Your task to perform on an android device: Add "usb-a" to the cart on newegg.com Image 0: 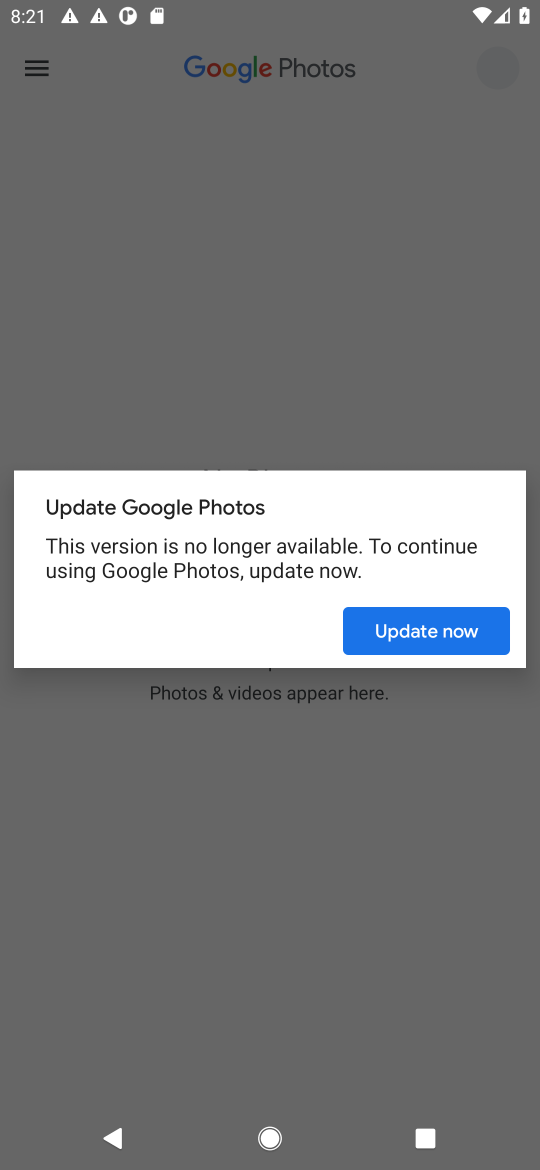
Step 0: press home button
Your task to perform on an android device: Add "usb-a" to the cart on newegg.com Image 1: 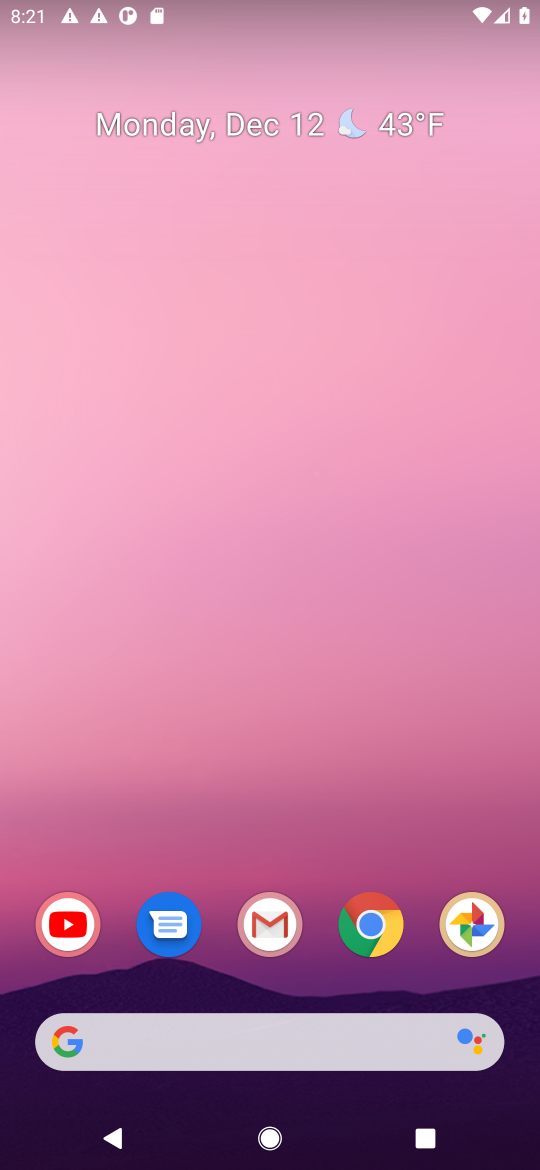
Step 1: click (262, 1044)
Your task to perform on an android device: Add "usb-a" to the cart on newegg.com Image 2: 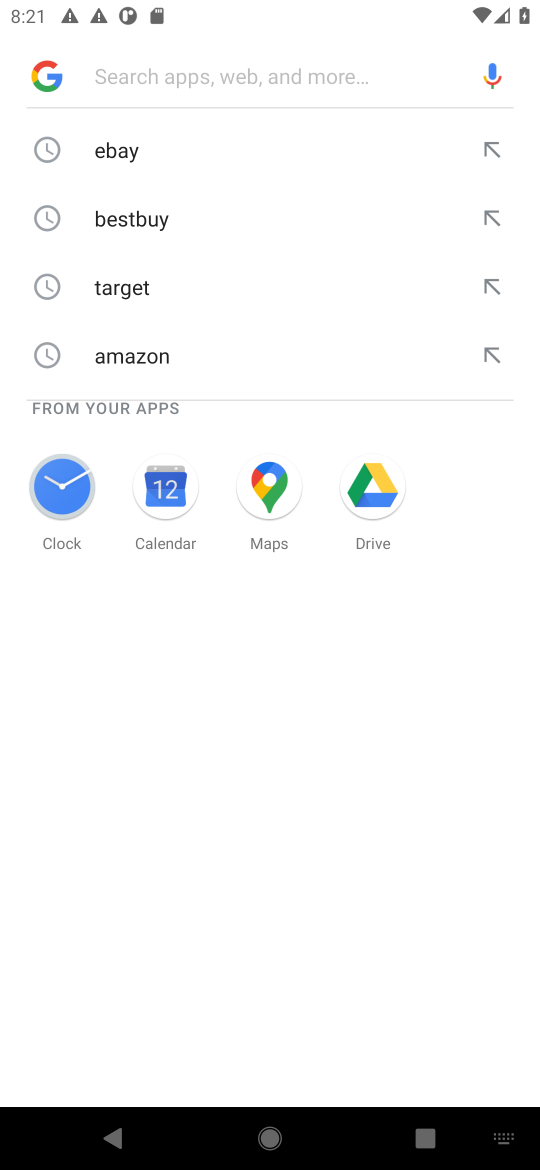
Step 2: type "newegg.com"
Your task to perform on an android device: Add "usb-a" to the cart on newegg.com Image 3: 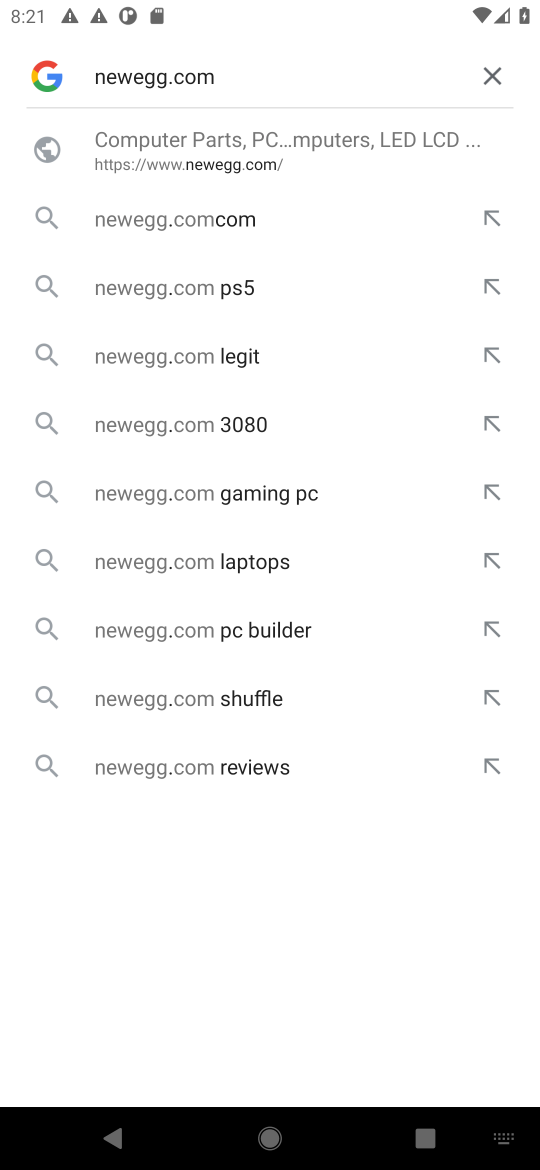
Step 3: click (221, 134)
Your task to perform on an android device: Add "usb-a" to the cart on newegg.com Image 4: 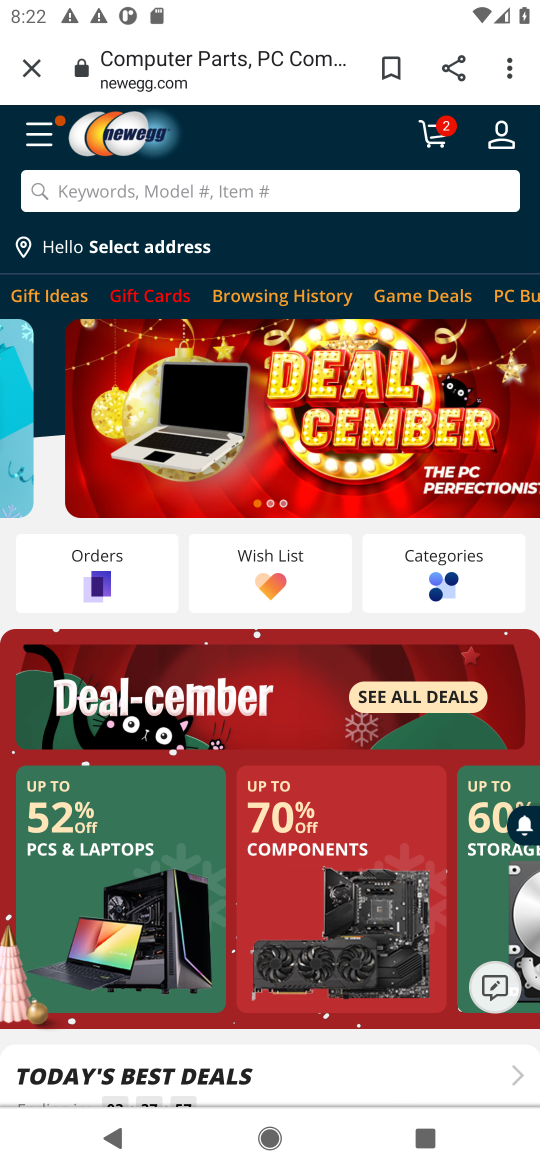
Step 4: click (335, 197)
Your task to perform on an android device: Add "usb-a" to the cart on newegg.com Image 5: 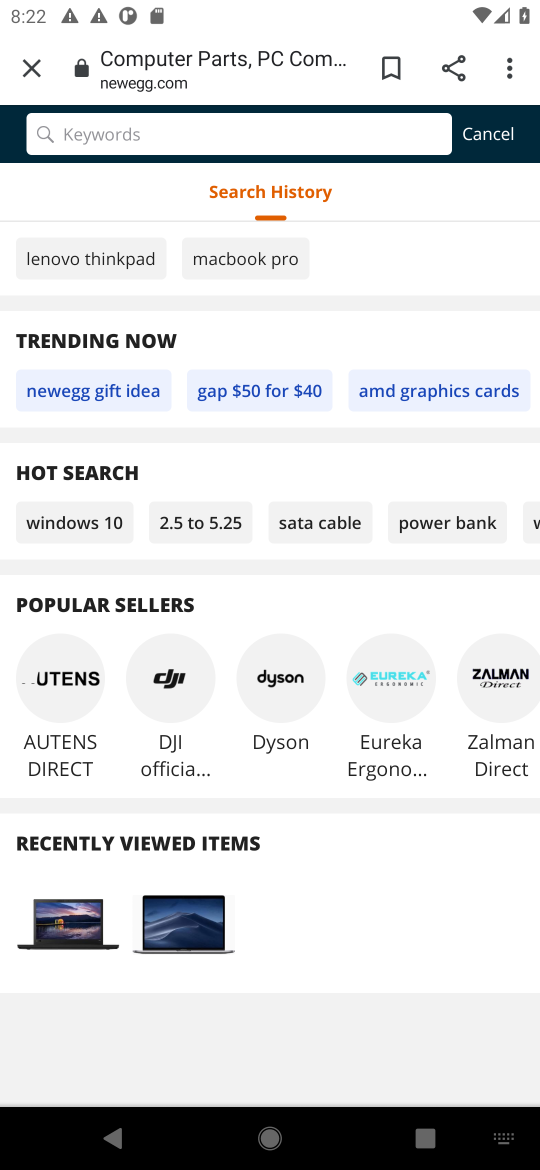
Step 5: type "usb-a"
Your task to perform on an android device: Add "usb-a" to the cart on newegg.com Image 6: 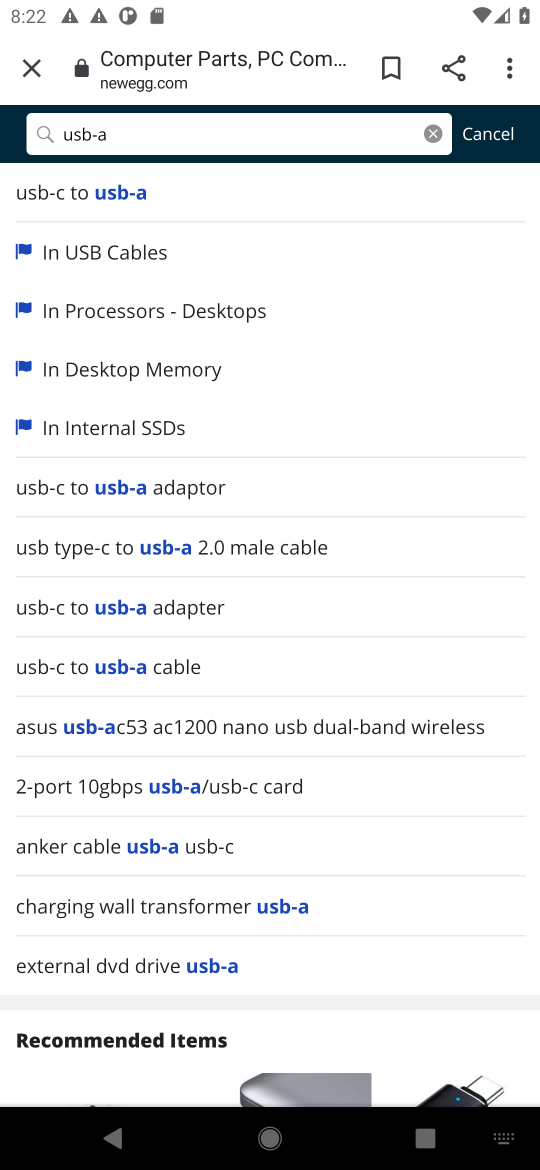
Step 6: click (175, 969)
Your task to perform on an android device: Add "usb-a" to the cart on newegg.com Image 7: 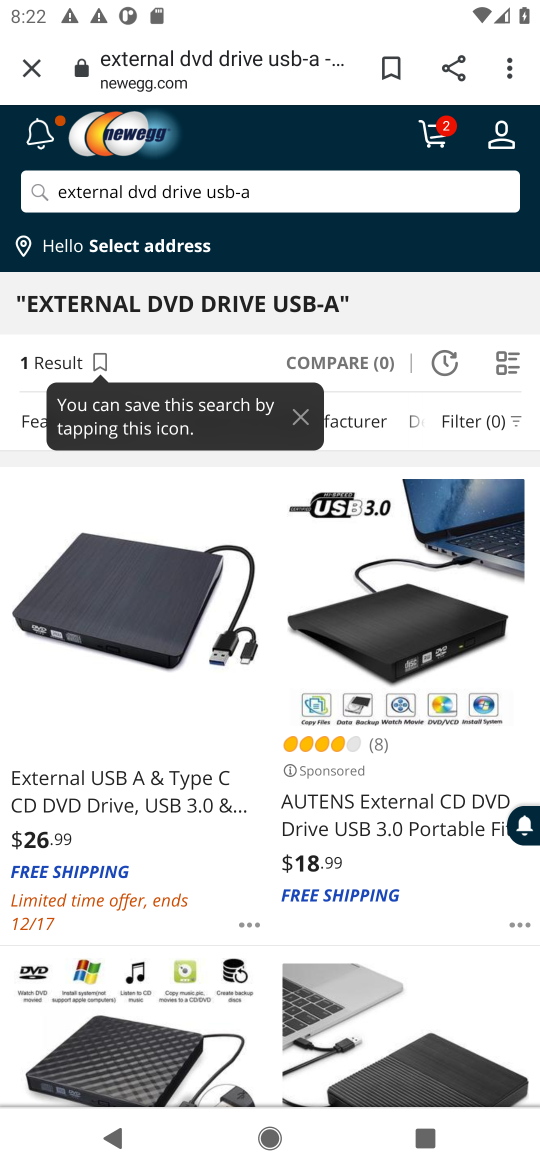
Step 7: click (111, 761)
Your task to perform on an android device: Add "usb-a" to the cart on newegg.com Image 8: 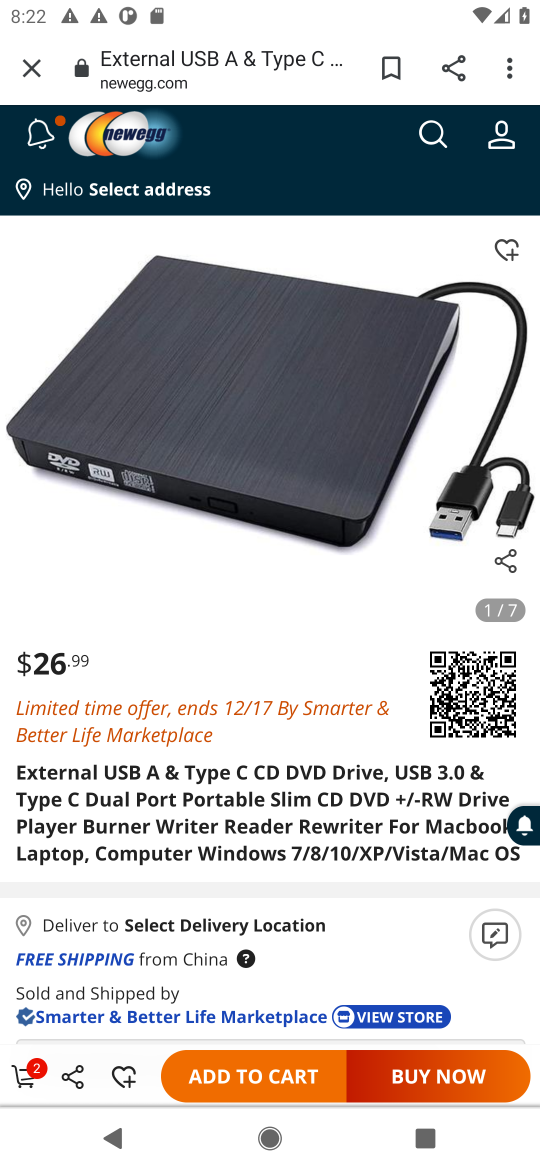
Step 8: click (245, 1070)
Your task to perform on an android device: Add "usb-a" to the cart on newegg.com Image 9: 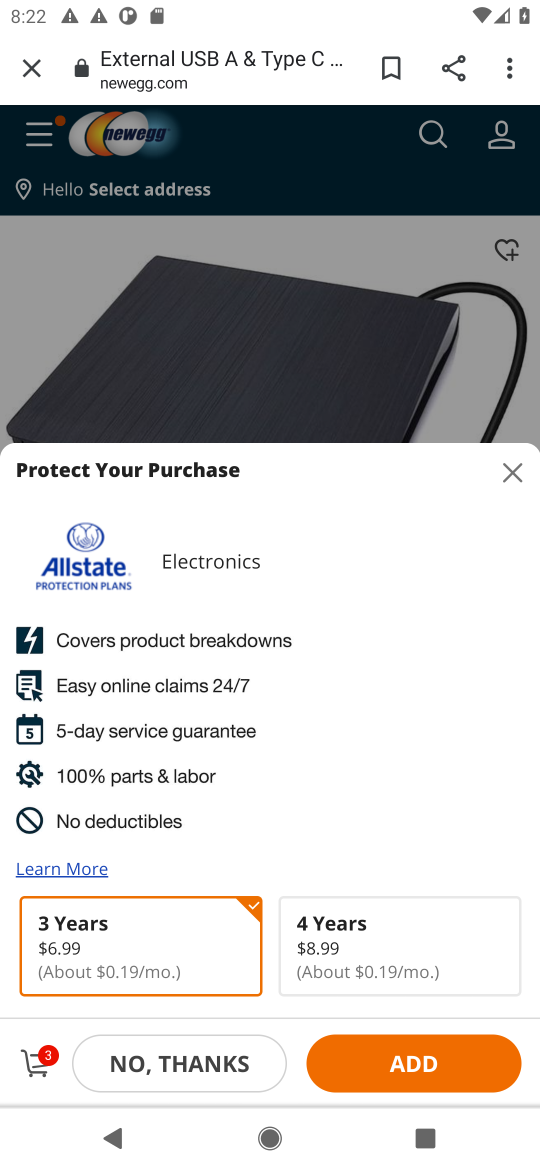
Step 9: click (518, 459)
Your task to perform on an android device: Add "usb-a" to the cart on newegg.com Image 10: 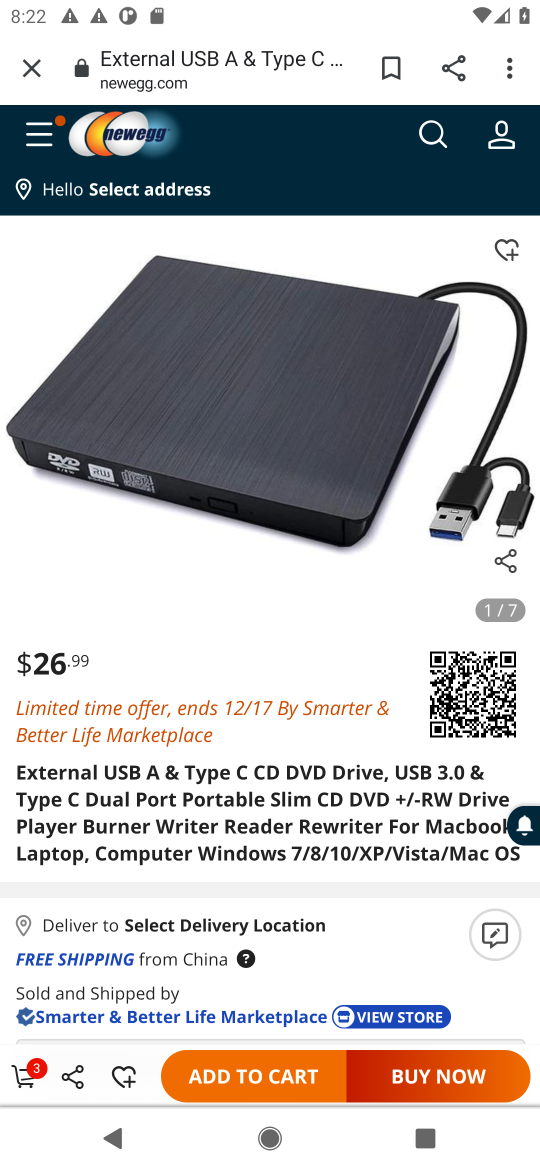
Step 10: task complete